Your task to perform on an android device: Open Google Maps Image 0: 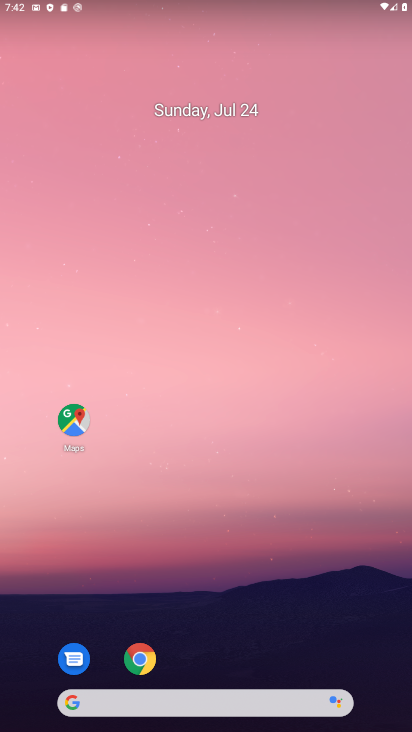
Step 0: click (72, 426)
Your task to perform on an android device: Open Google Maps Image 1: 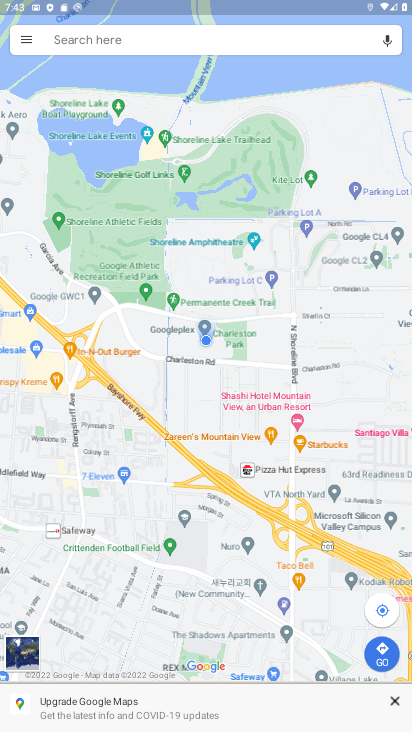
Step 1: task complete